Your task to perform on an android device: change the clock display to digital Image 0: 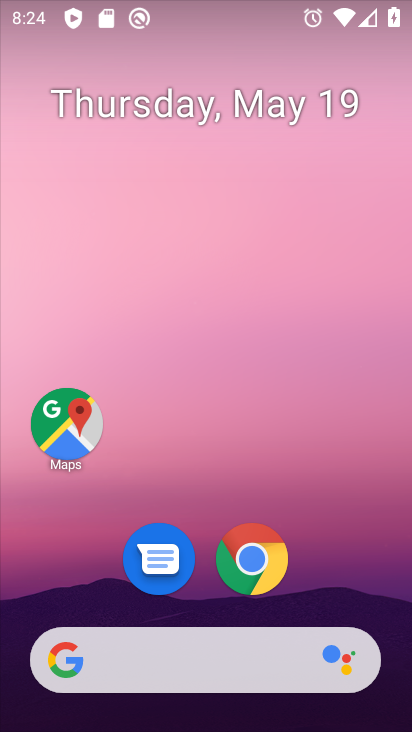
Step 0: drag from (358, 572) to (373, 61)
Your task to perform on an android device: change the clock display to digital Image 1: 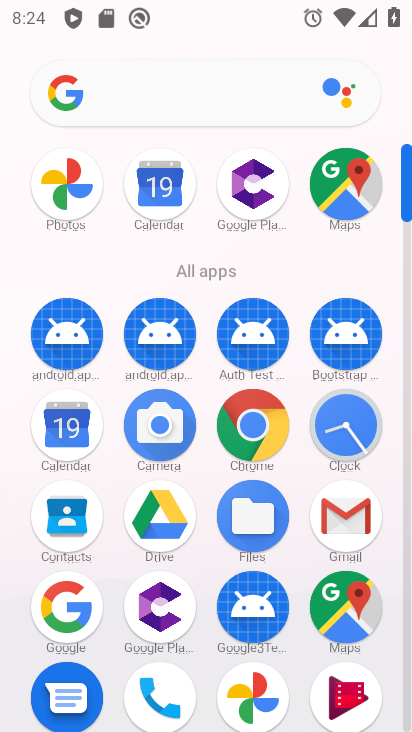
Step 1: click (368, 422)
Your task to perform on an android device: change the clock display to digital Image 2: 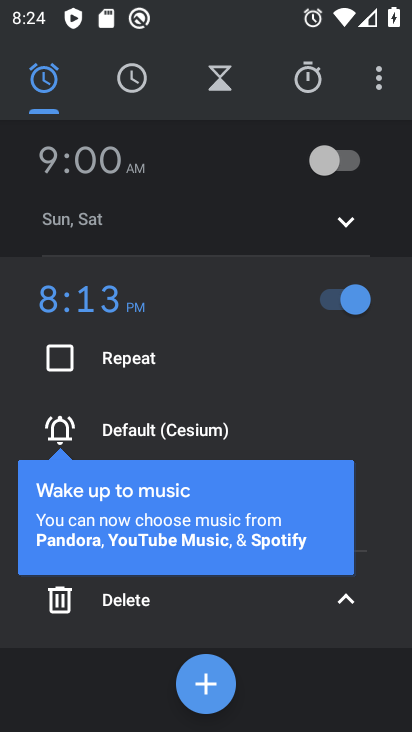
Step 2: click (378, 70)
Your task to perform on an android device: change the clock display to digital Image 3: 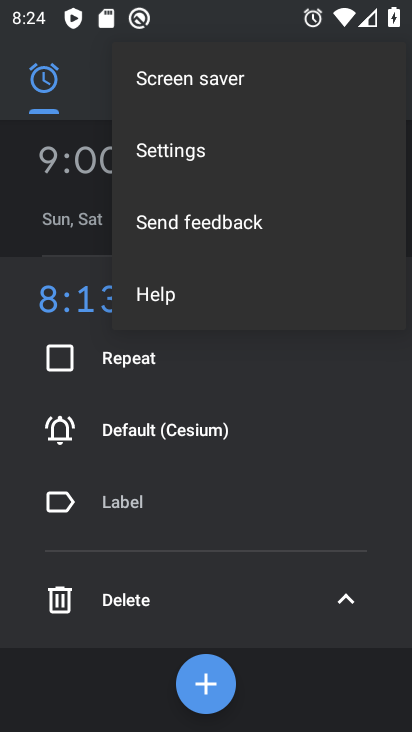
Step 3: click (205, 157)
Your task to perform on an android device: change the clock display to digital Image 4: 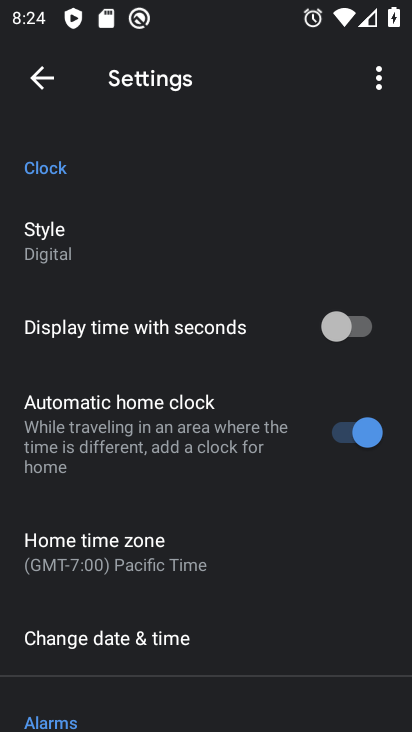
Step 4: task complete